Your task to perform on an android device: toggle airplane mode Image 0: 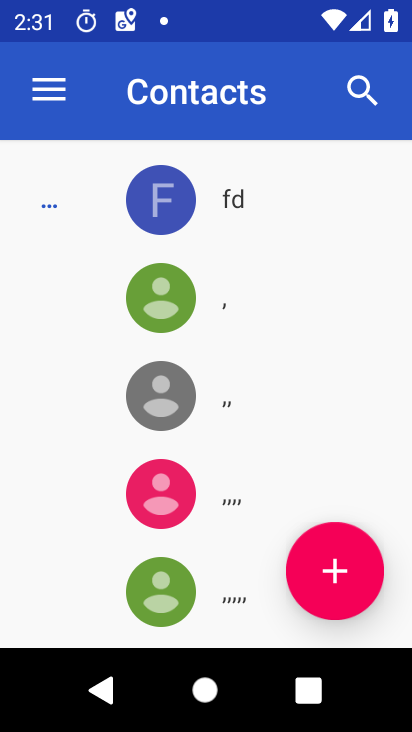
Step 0: press home button
Your task to perform on an android device: toggle airplane mode Image 1: 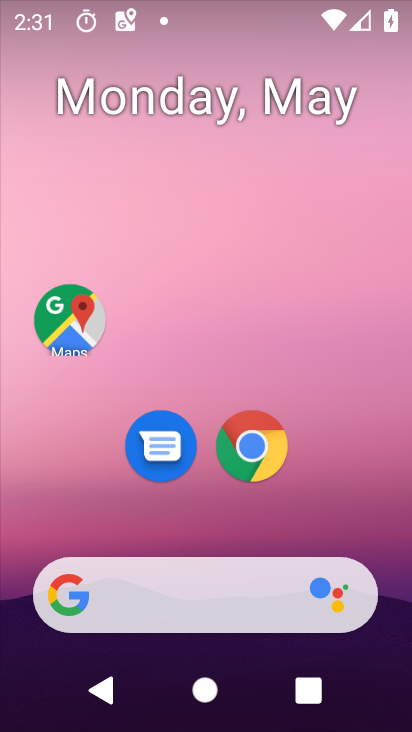
Step 1: drag from (140, 579) to (209, 117)
Your task to perform on an android device: toggle airplane mode Image 2: 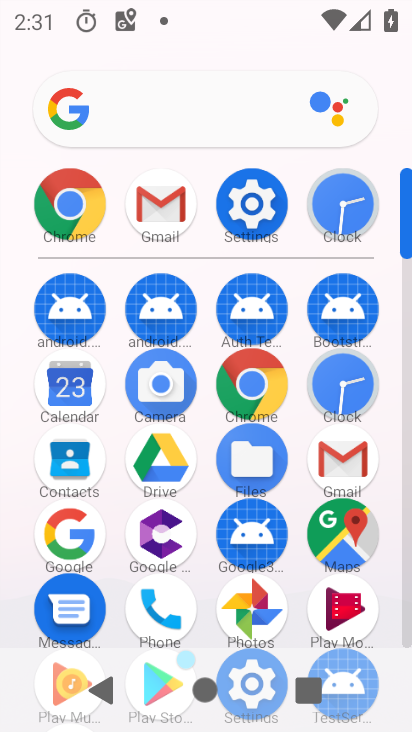
Step 2: click (263, 243)
Your task to perform on an android device: toggle airplane mode Image 3: 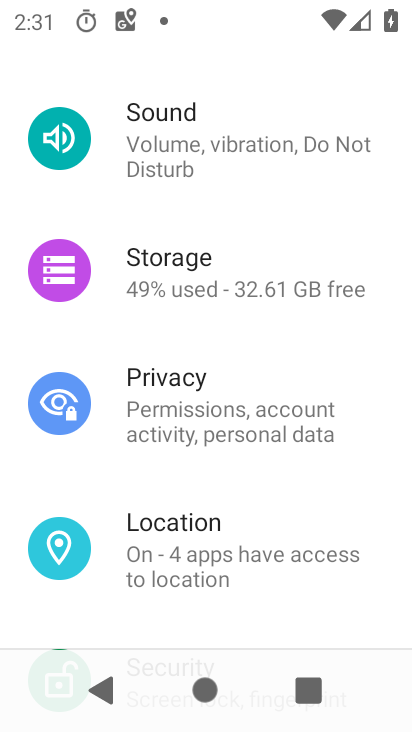
Step 3: drag from (199, 185) to (304, 646)
Your task to perform on an android device: toggle airplane mode Image 4: 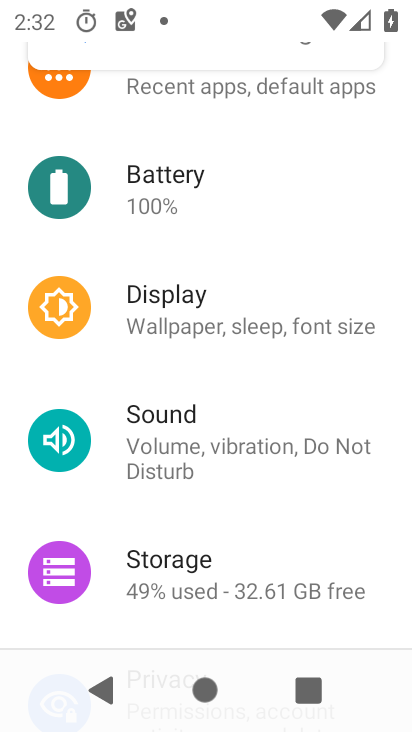
Step 4: drag from (260, 315) to (271, 542)
Your task to perform on an android device: toggle airplane mode Image 5: 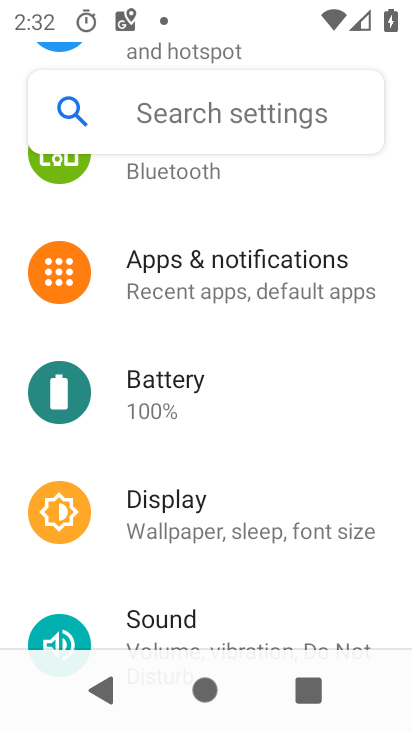
Step 5: drag from (207, 188) to (192, 478)
Your task to perform on an android device: toggle airplane mode Image 6: 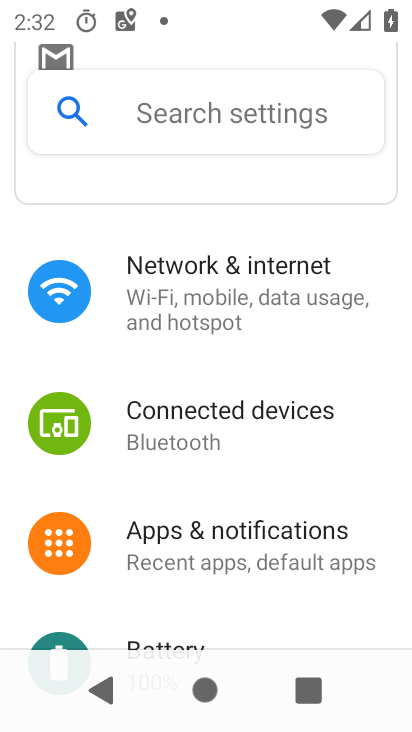
Step 6: click (187, 326)
Your task to perform on an android device: toggle airplane mode Image 7: 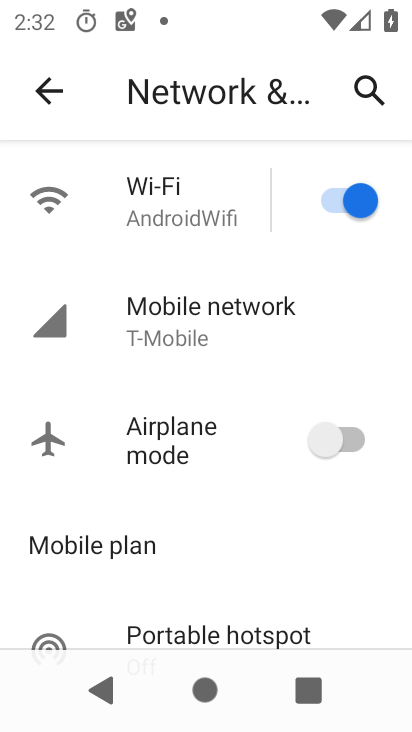
Step 7: click (342, 210)
Your task to perform on an android device: toggle airplane mode Image 8: 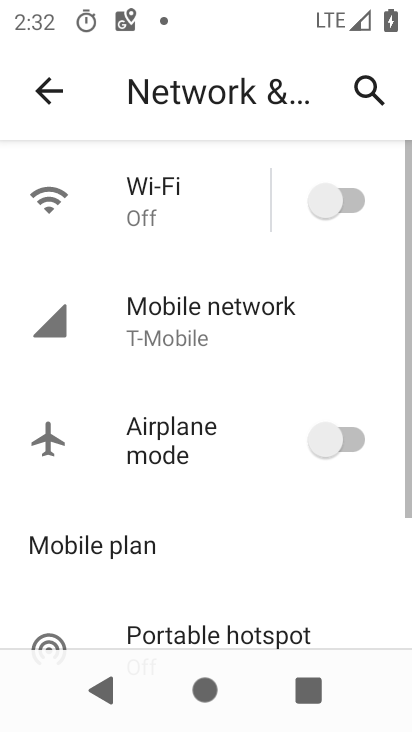
Step 8: task complete